Your task to perform on an android device: turn off airplane mode Image 0: 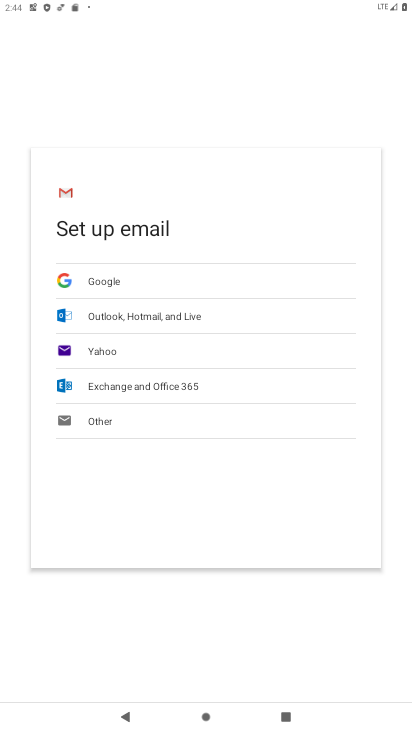
Step 0: press home button
Your task to perform on an android device: turn off airplane mode Image 1: 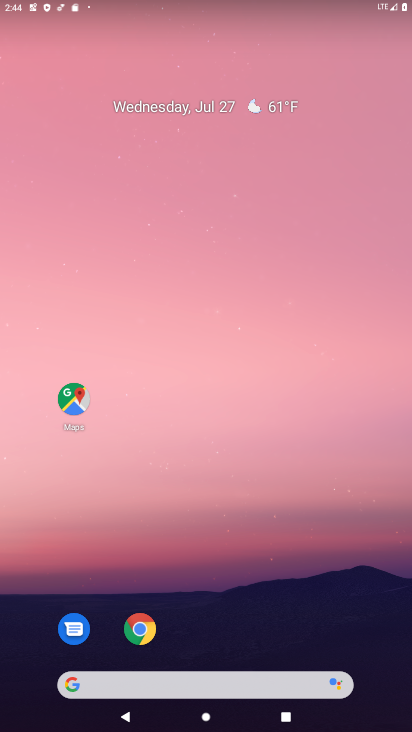
Step 1: drag from (183, 690) to (159, 73)
Your task to perform on an android device: turn off airplane mode Image 2: 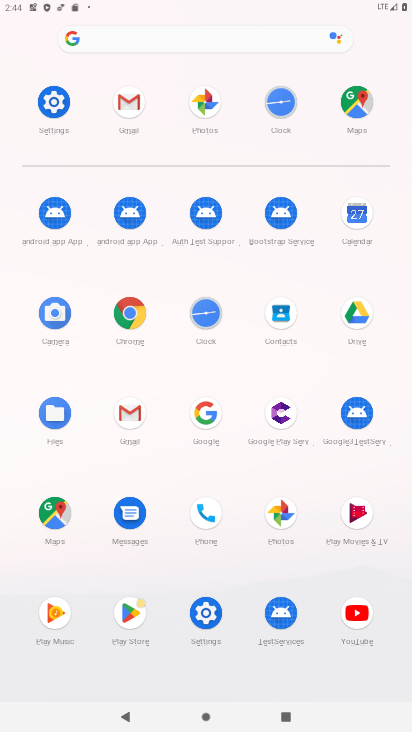
Step 2: click (55, 101)
Your task to perform on an android device: turn off airplane mode Image 3: 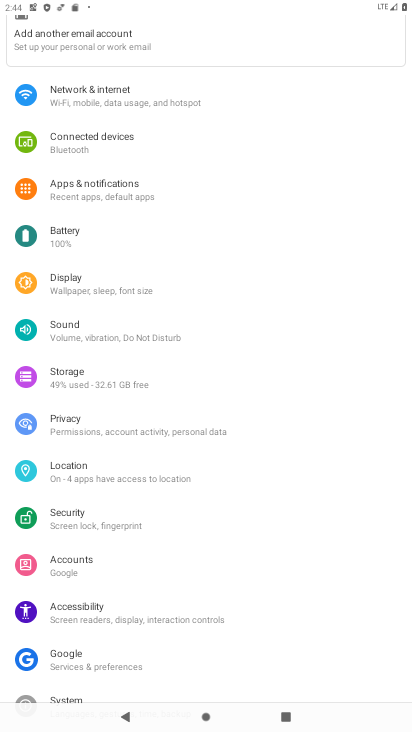
Step 3: click (91, 95)
Your task to perform on an android device: turn off airplane mode Image 4: 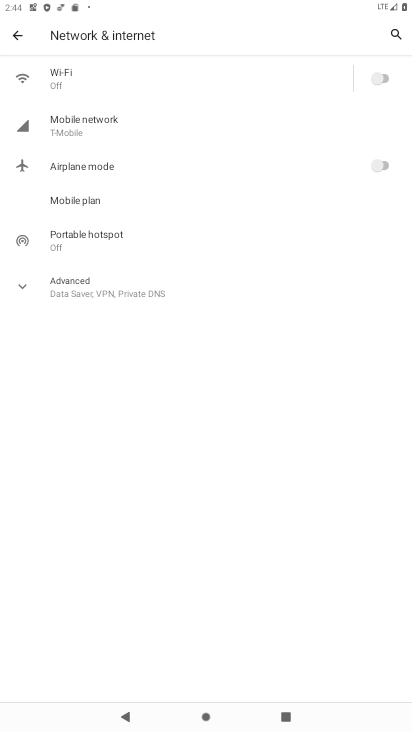
Step 4: task complete